Your task to perform on an android device: find photos in the google photos app Image 0: 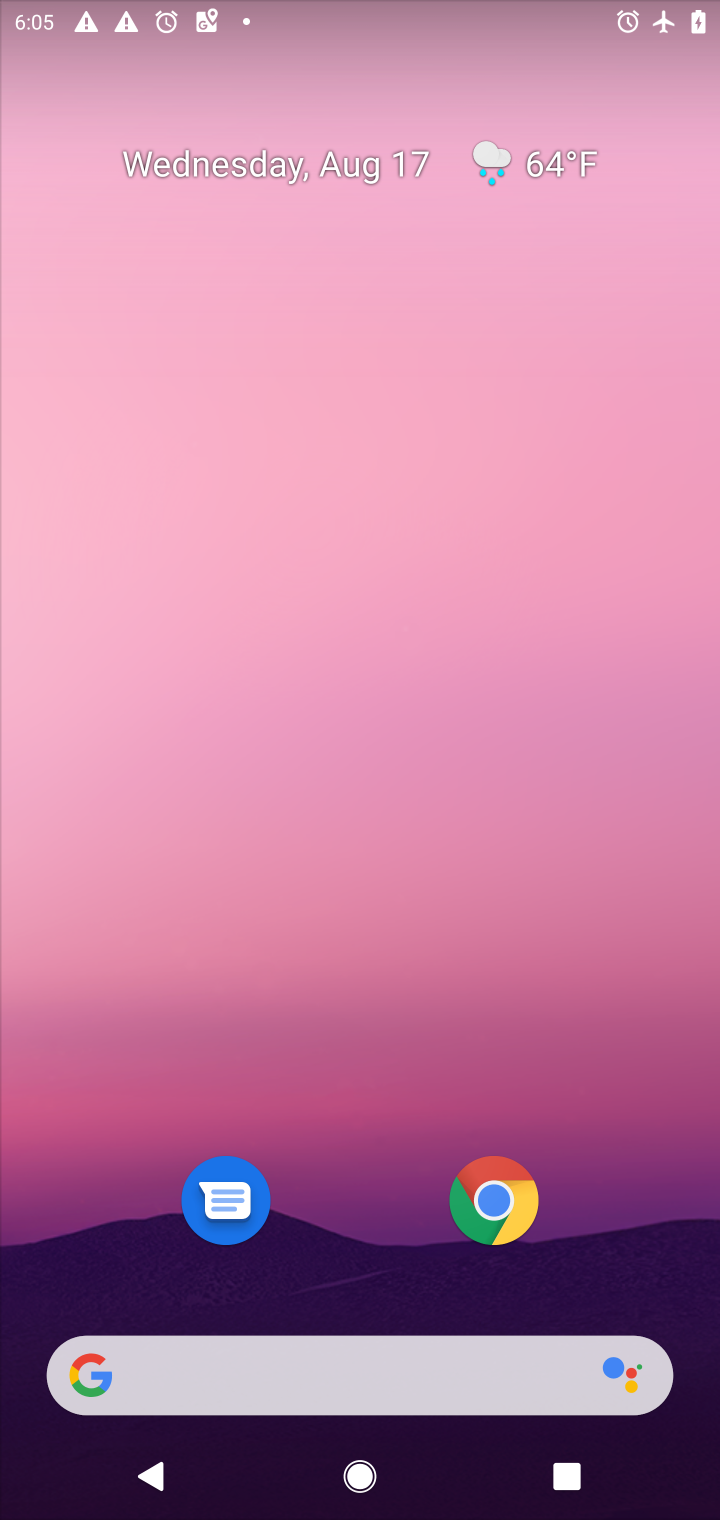
Step 0: press home button
Your task to perform on an android device: find photos in the google photos app Image 1: 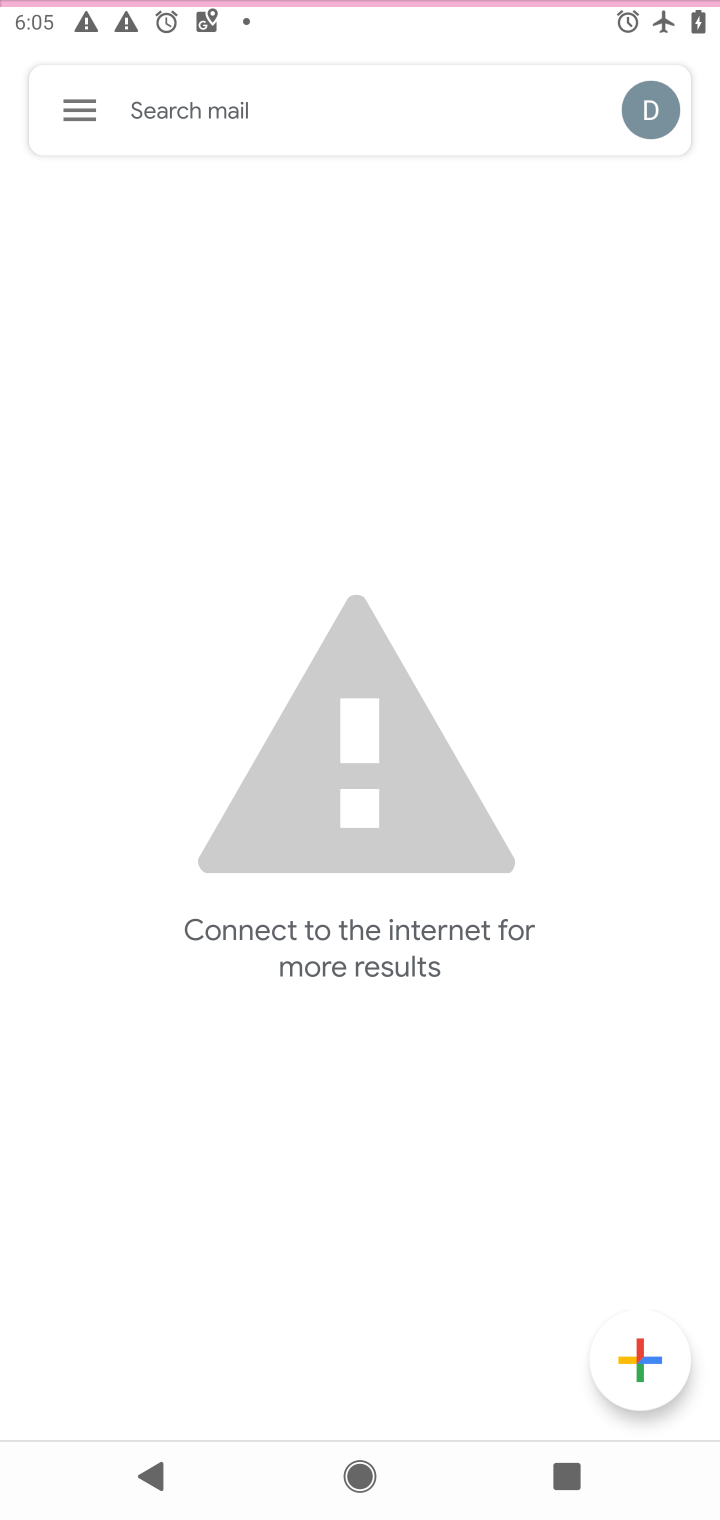
Step 1: click (359, 345)
Your task to perform on an android device: find photos in the google photos app Image 2: 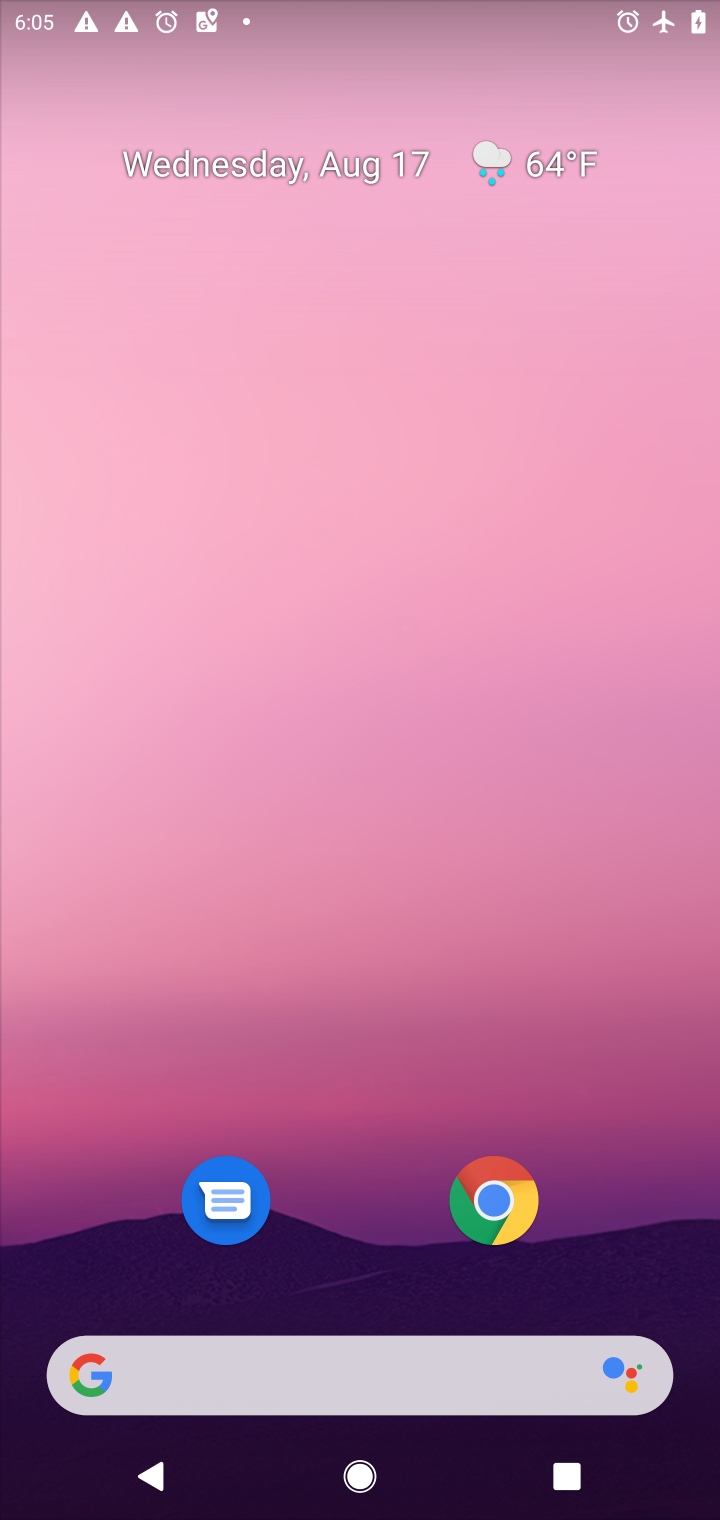
Step 2: drag from (337, 809) to (337, 130)
Your task to perform on an android device: find photos in the google photos app Image 3: 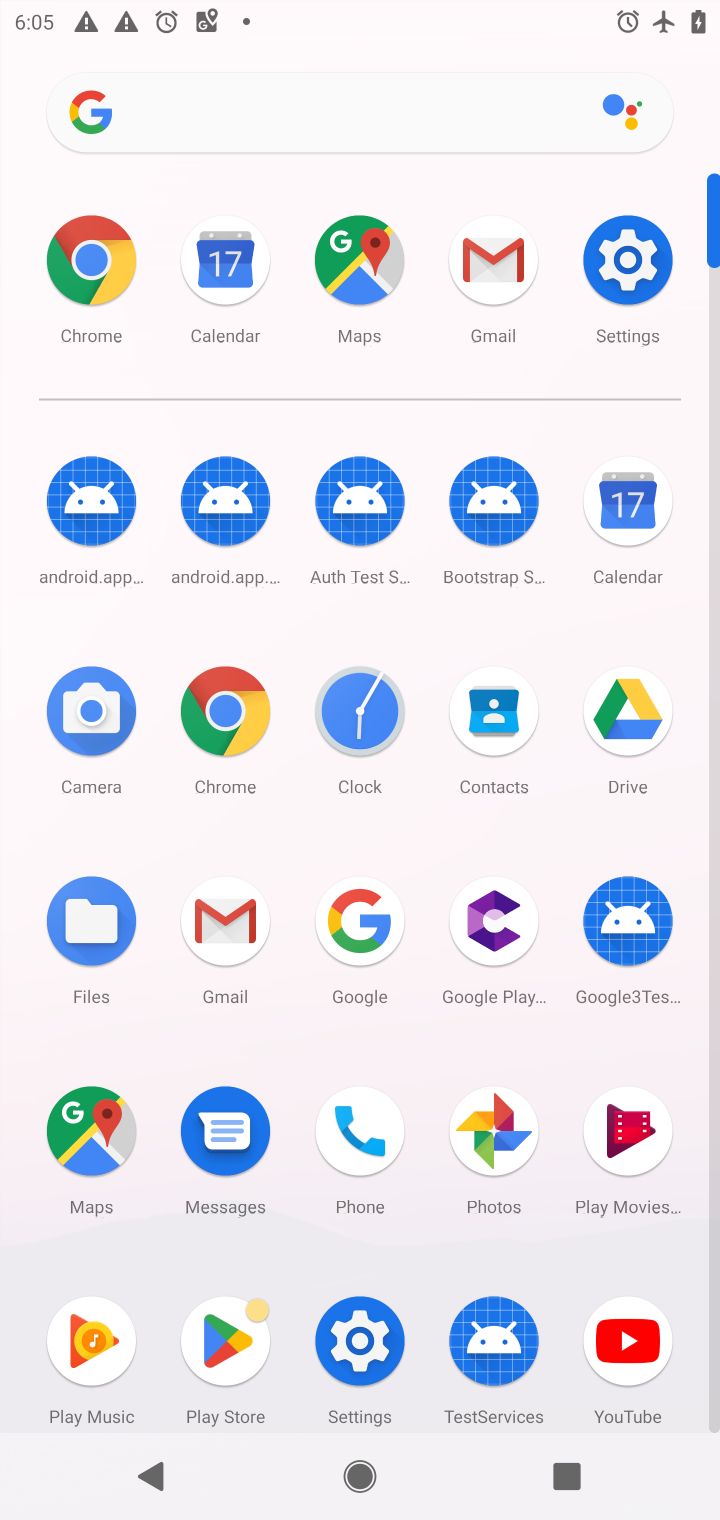
Step 3: click (485, 1125)
Your task to perform on an android device: find photos in the google photos app Image 4: 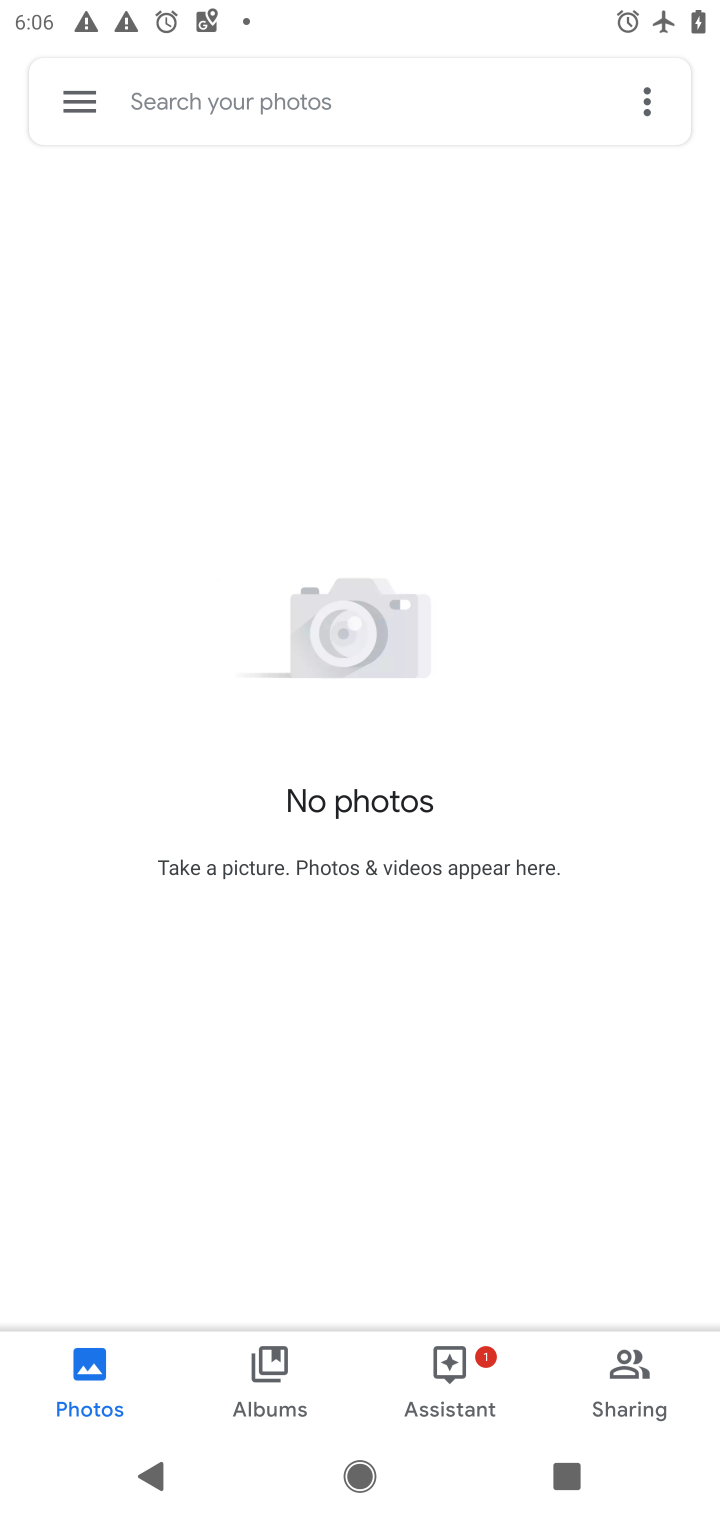
Step 4: task complete